Your task to perform on an android device: Go to ESPN.com Image 0: 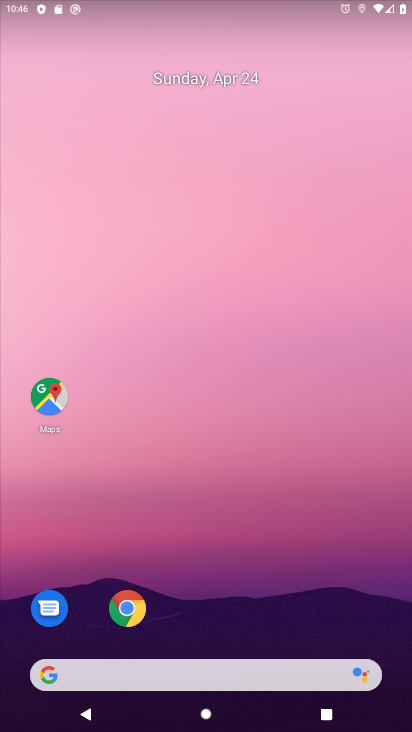
Step 0: click (126, 605)
Your task to perform on an android device: Go to ESPN.com Image 1: 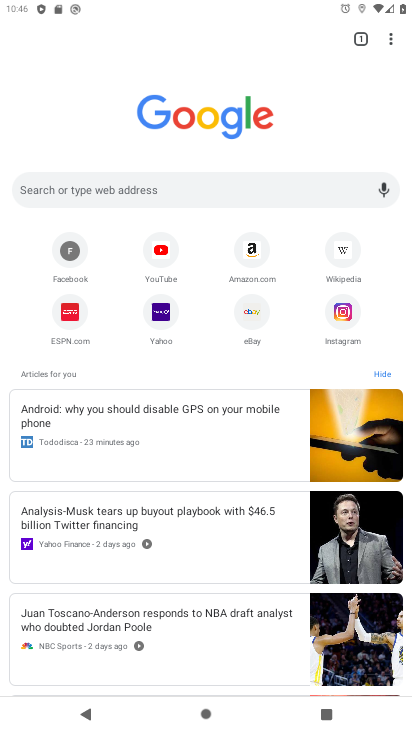
Step 1: click (101, 193)
Your task to perform on an android device: Go to ESPN.com Image 2: 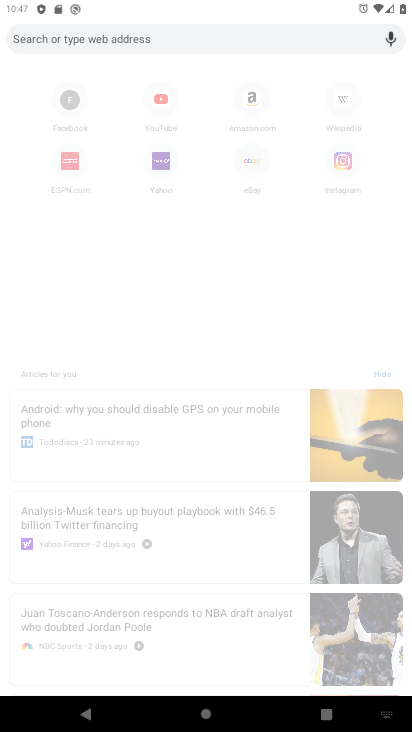
Step 2: type "espn.com"
Your task to perform on an android device: Go to ESPN.com Image 3: 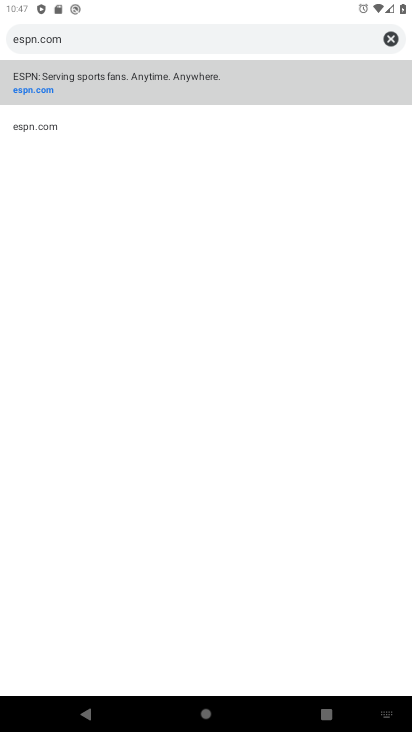
Step 3: click (41, 79)
Your task to perform on an android device: Go to ESPN.com Image 4: 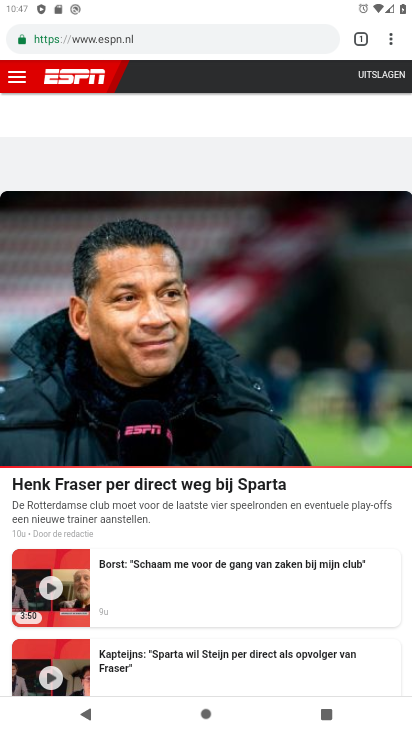
Step 4: task complete